Your task to perform on an android device: check battery use Image 0: 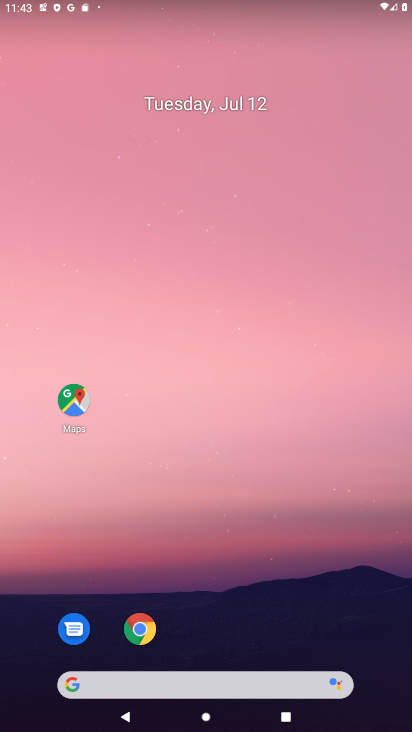
Step 0: drag from (245, 568) to (256, 135)
Your task to perform on an android device: check battery use Image 1: 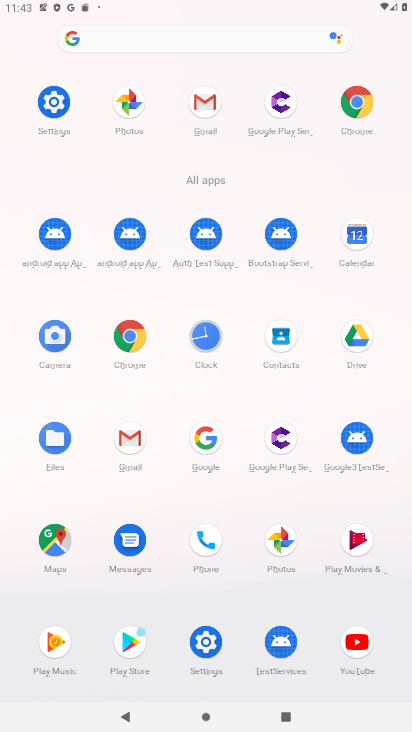
Step 1: click (57, 107)
Your task to perform on an android device: check battery use Image 2: 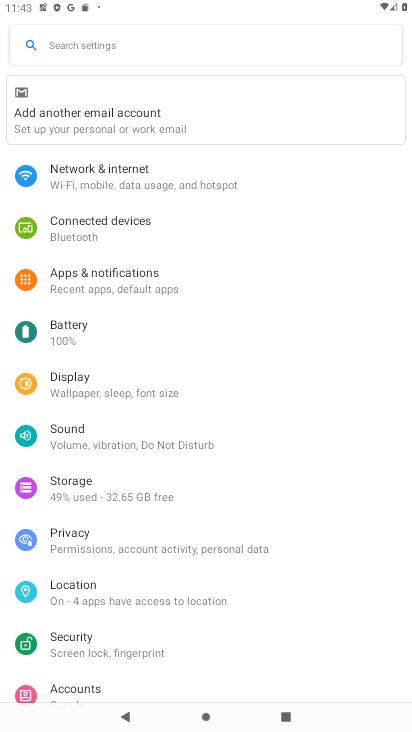
Step 2: click (75, 336)
Your task to perform on an android device: check battery use Image 3: 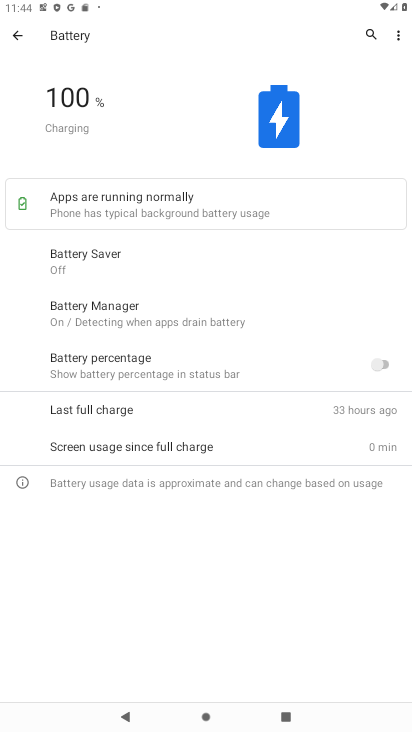
Step 3: click (397, 31)
Your task to perform on an android device: check battery use Image 4: 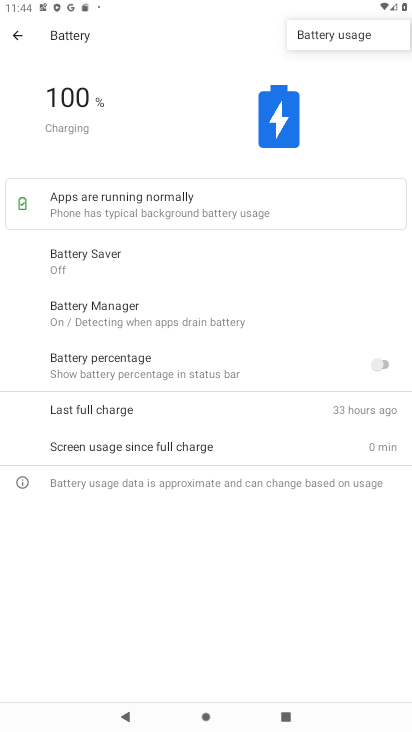
Step 4: click (353, 34)
Your task to perform on an android device: check battery use Image 5: 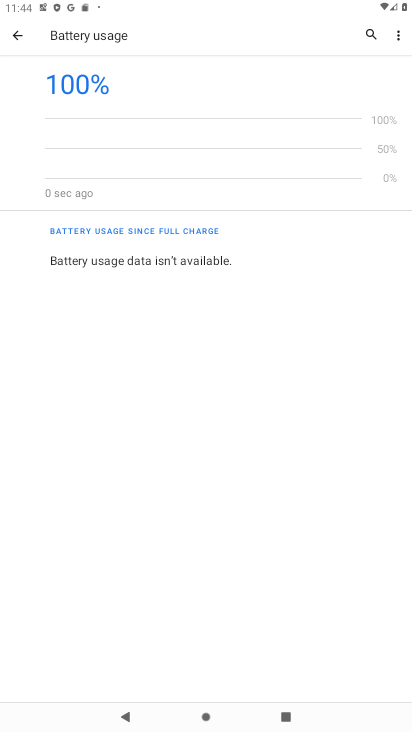
Step 5: task complete